Your task to perform on an android device: change alarm snooze length Image 0: 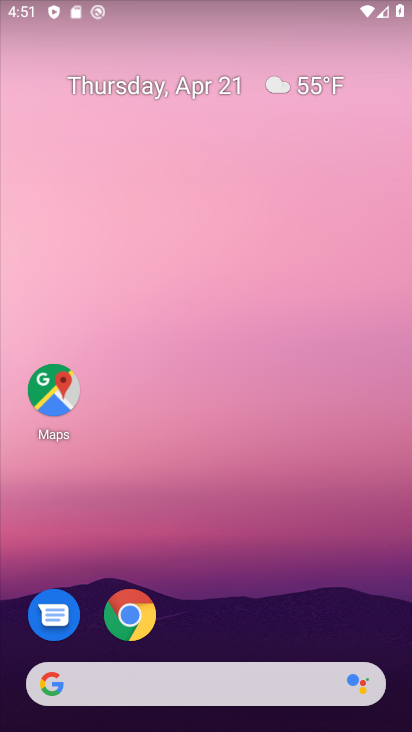
Step 0: drag from (292, 594) to (258, 13)
Your task to perform on an android device: change alarm snooze length Image 1: 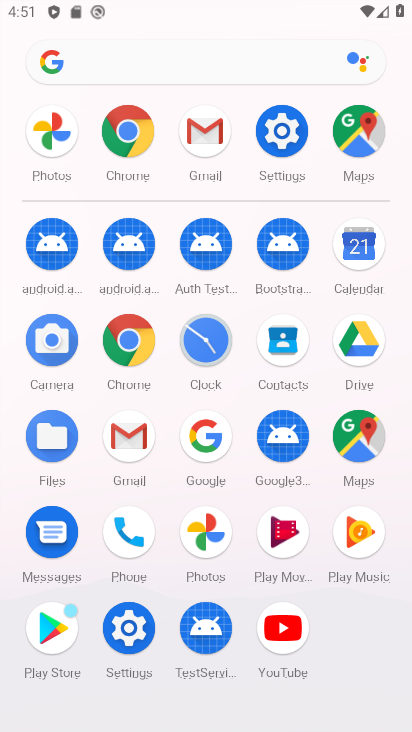
Step 1: drag from (5, 555) to (3, 260)
Your task to perform on an android device: change alarm snooze length Image 2: 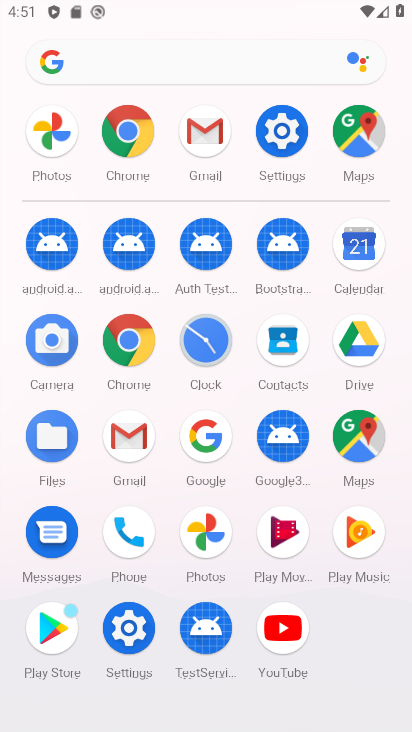
Step 2: drag from (6, 458) to (13, 203)
Your task to perform on an android device: change alarm snooze length Image 3: 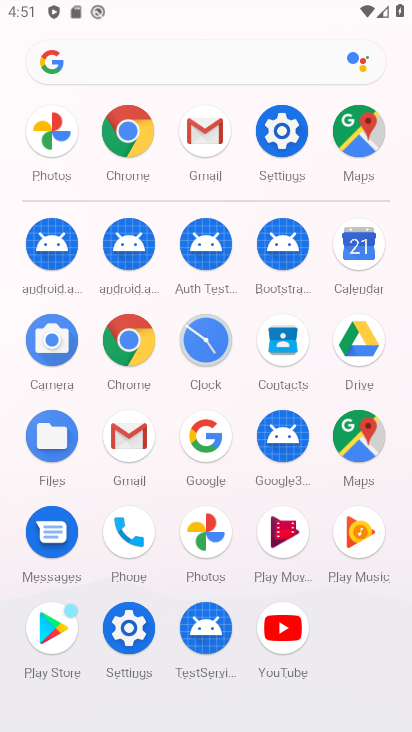
Step 3: click (205, 340)
Your task to perform on an android device: change alarm snooze length Image 4: 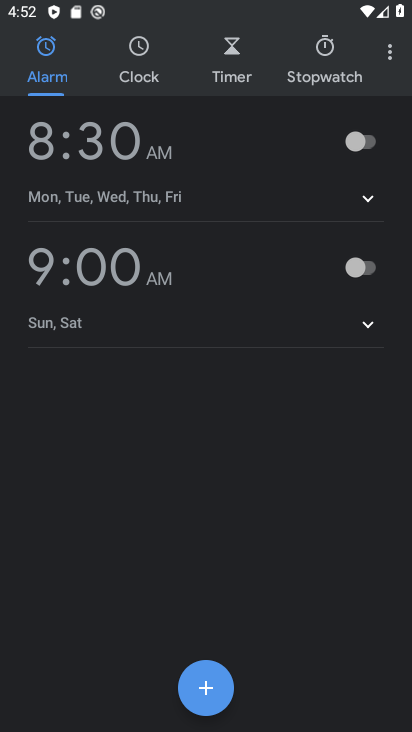
Step 4: click (380, 56)
Your task to perform on an android device: change alarm snooze length Image 5: 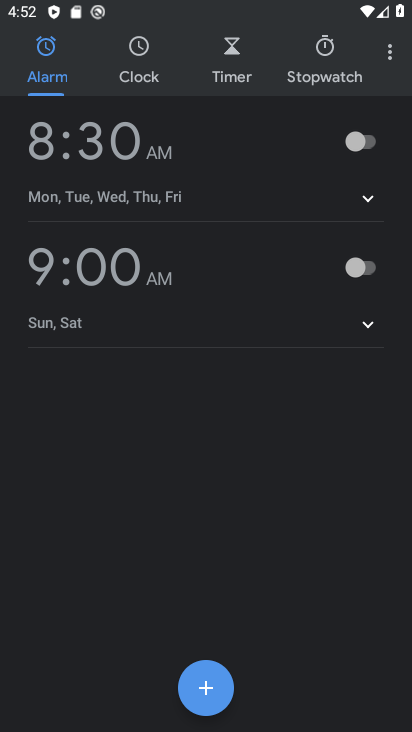
Step 5: click (388, 56)
Your task to perform on an android device: change alarm snooze length Image 6: 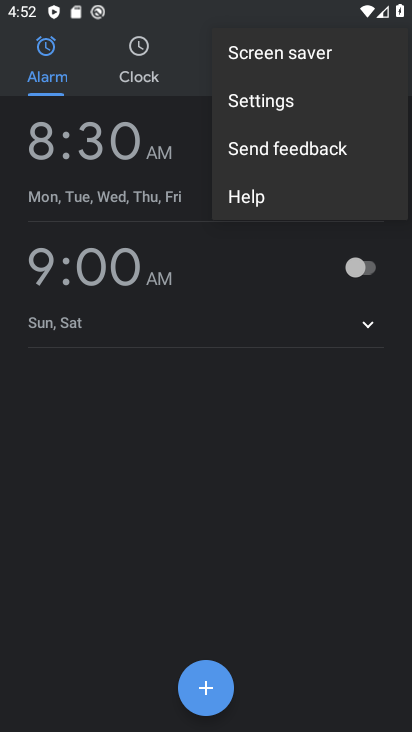
Step 6: click (297, 93)
Your task to perform on an android device: change alarm snooze length Image 7: 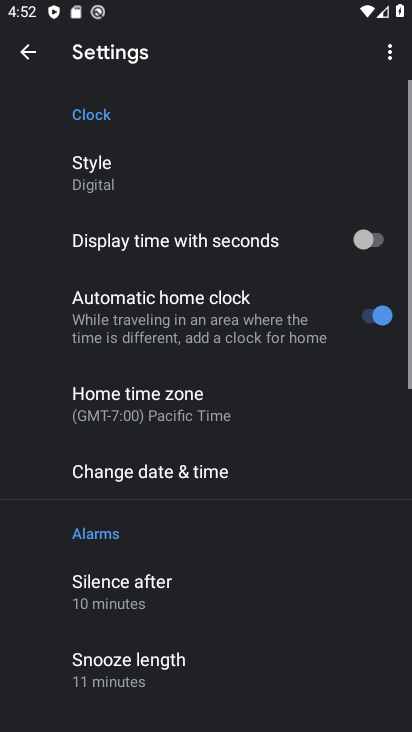
Step 7: drag from (213, 339) to (219, 140)
Your task to perform on an android device: change alarm snooze length Image 8: 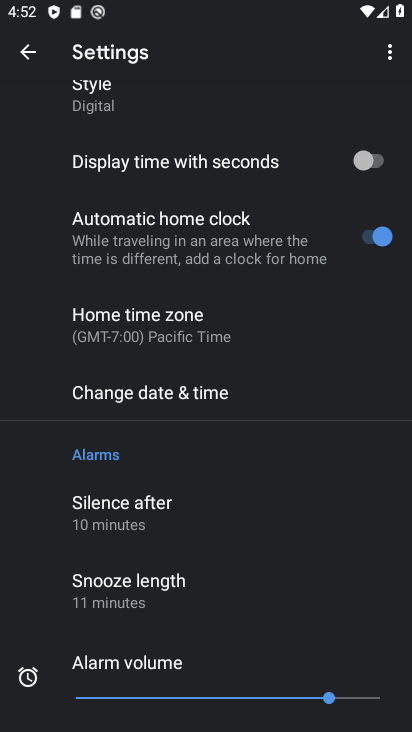
Step 8: click (172, 583)
Your task to perform on an android device: change alarm snooze length Image 9: 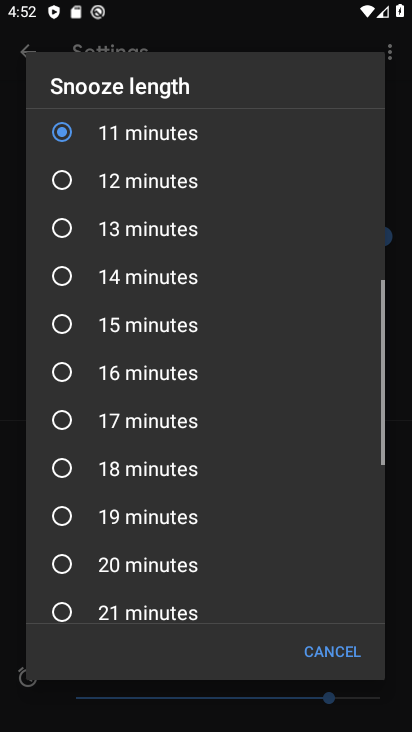
Step 9: click (137, 417)
Your task to perform on an android device: change alarm snooze length Image 10: 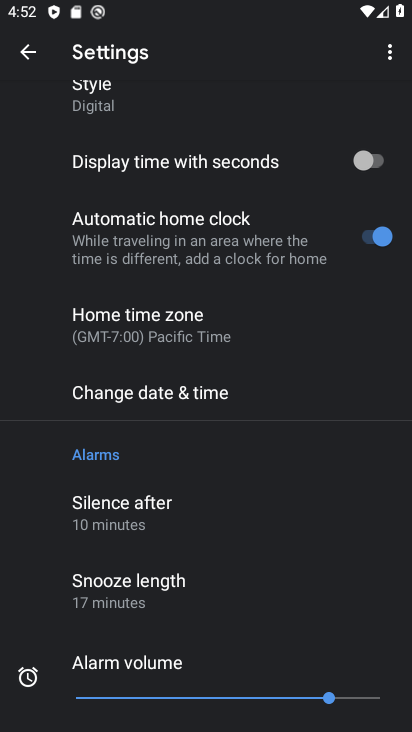
Step 10: task complete